Your task to perform on an android device: turn notification dots off Image 0: 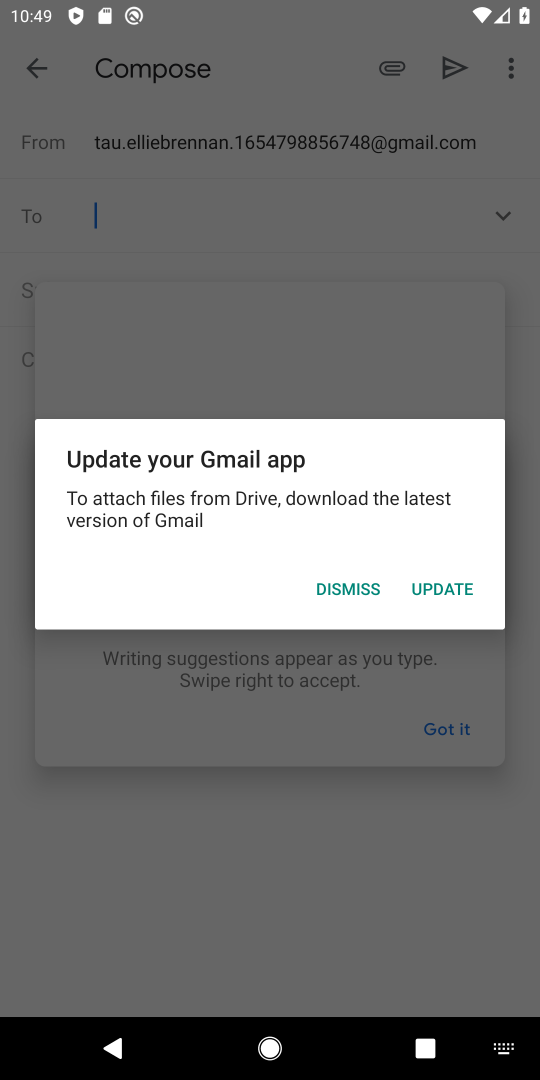
Step 0: press home button
Your task to perform on an android device: turn notification dots off Image 1: 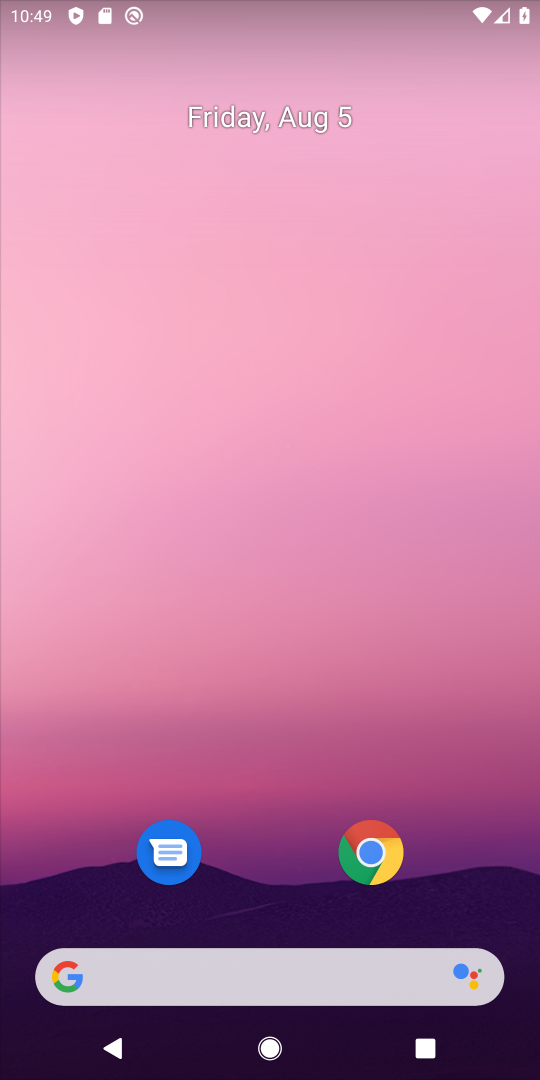
Step 1: drag from (247, 910) to (247, 439)
Your task to perform on an android device: turn notification dots off Image 2: 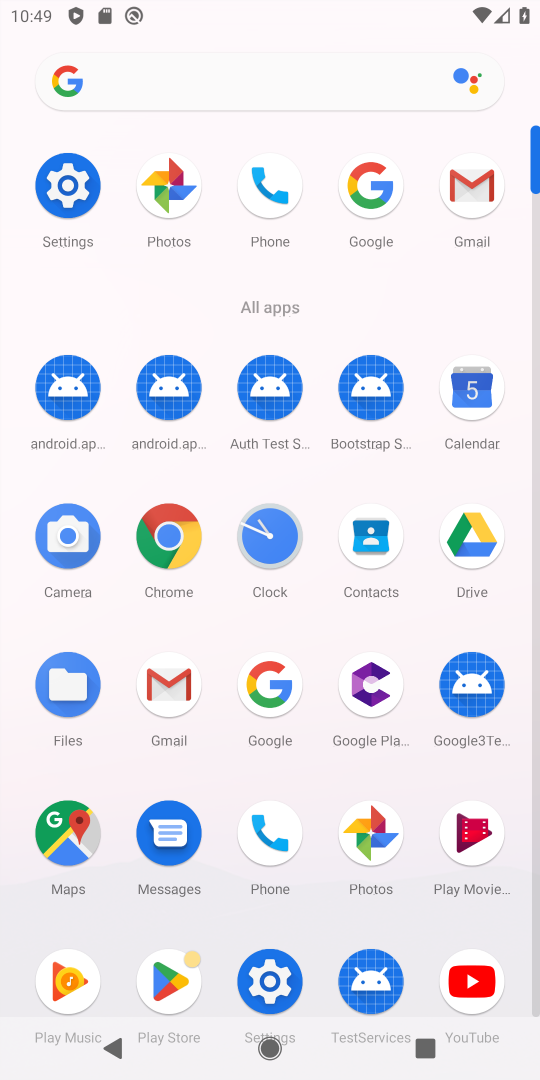
Step 2: click (69, 197)
Your task to perform on an android device: turn notification dots off Image 3: 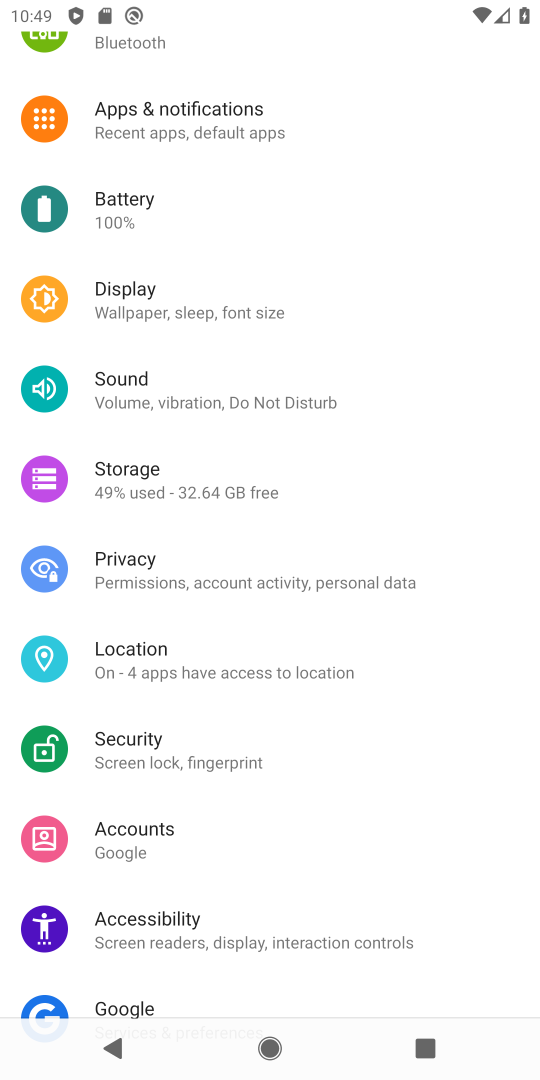
Step 3: click (180, 105)
Your task to perform on an android device: turn notification dots off Image 4: 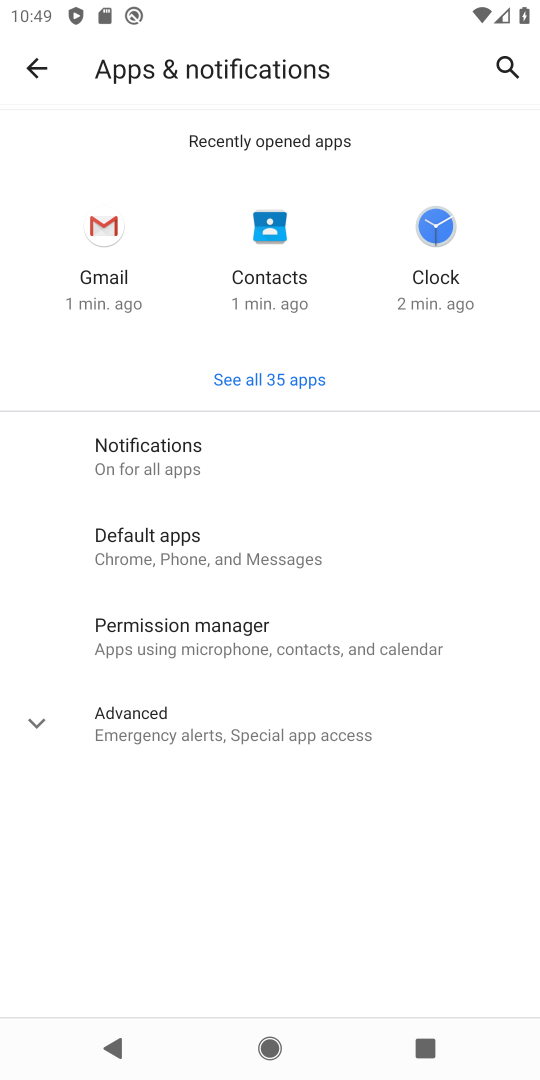
Step 4: click (194, 716)
Your task to perform on an android device: turn notification dots off Image 5: 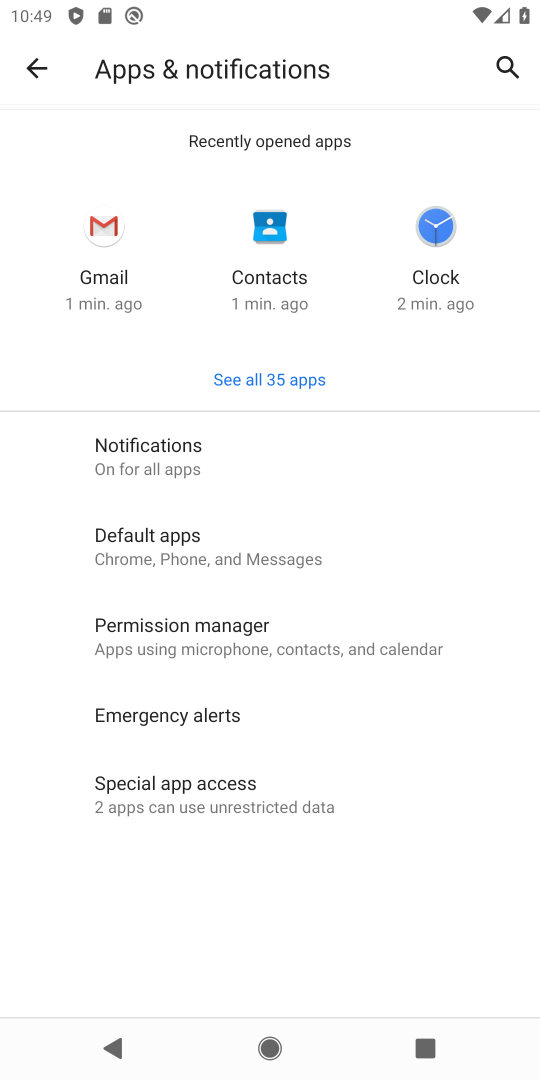
Step 5: click (171, 447)
Your task to perform on an android device: turn notification dots off Image 6: 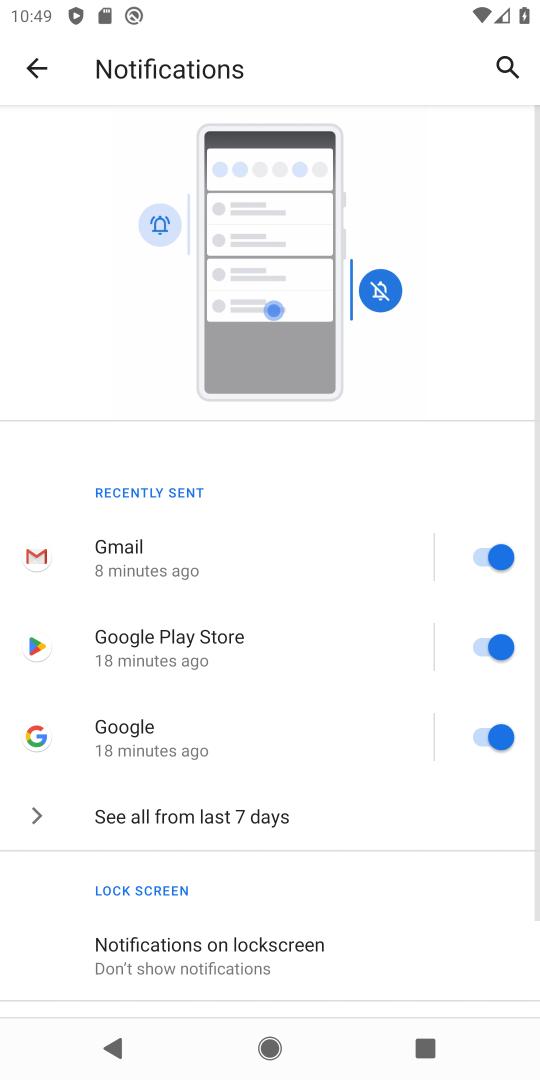
Step 6: drag from (229, 987) to (239, 634)
Your task to perform on an android device: turn notification dots off Image 7: 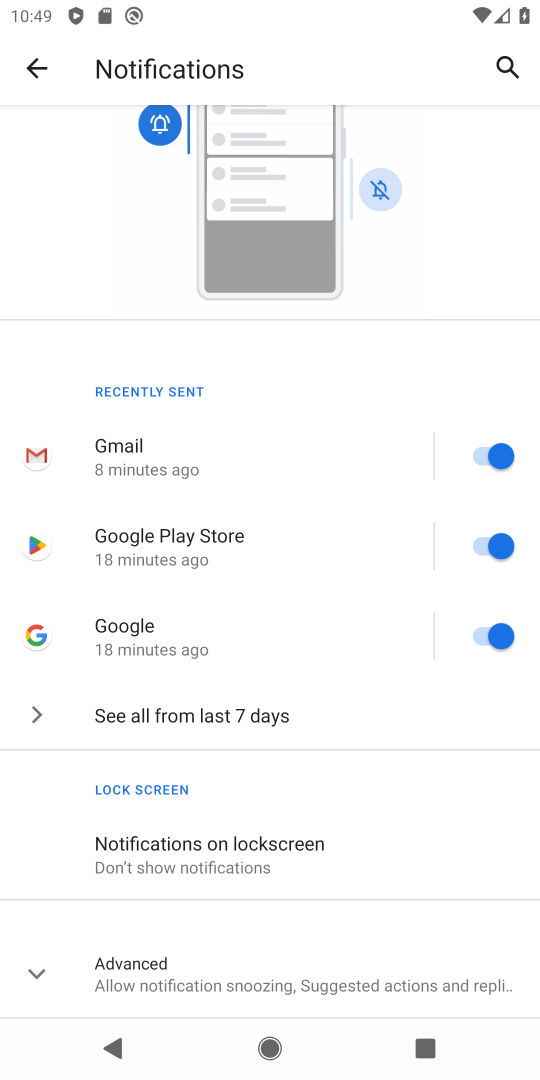
Step 7: click (158, 958)
Your task to perform on an android device: turn notification dots off Image 8: 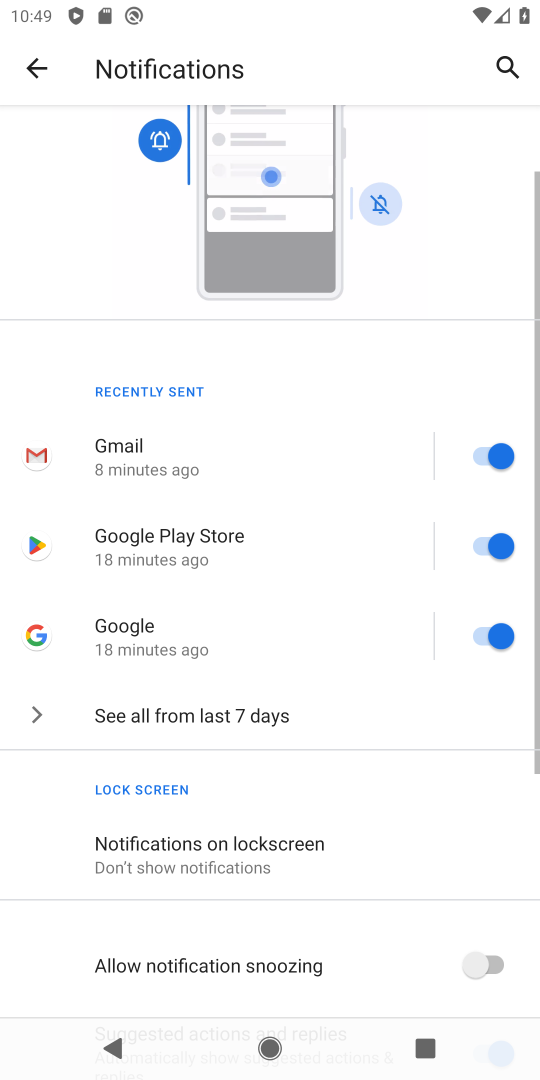
Step 8: drag from (278, 963) to (319, 629)
Your task to perform on an android device: turn notification dots off Image 9: 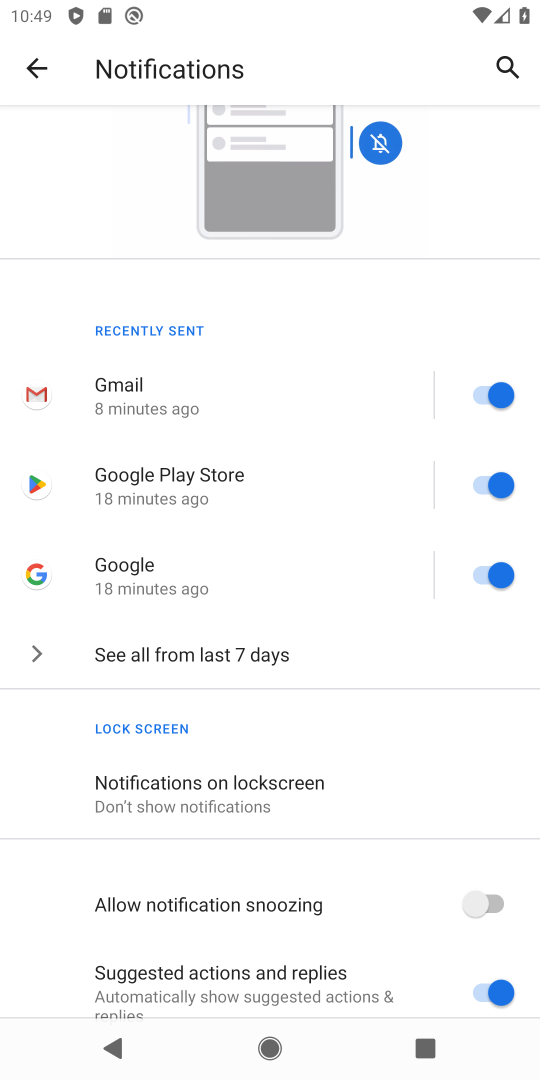
Step 9: drag from (417, 969) to (414, 628)
Your task to perform on an android device: turn notification dots off Image 10: 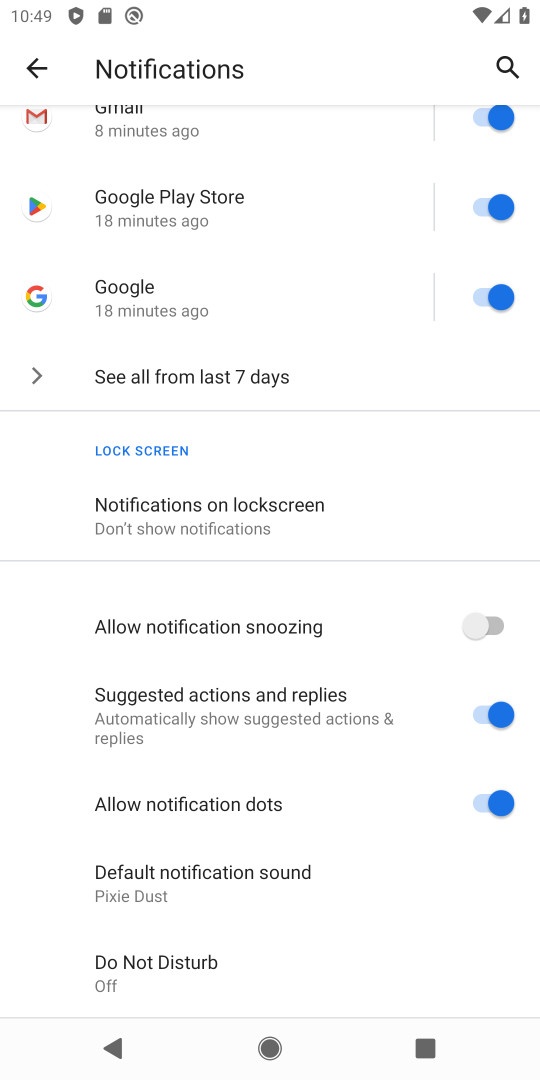
Step 10: click (498, 799)
Your task to perform on an android device: turn notification dots off Image 11: 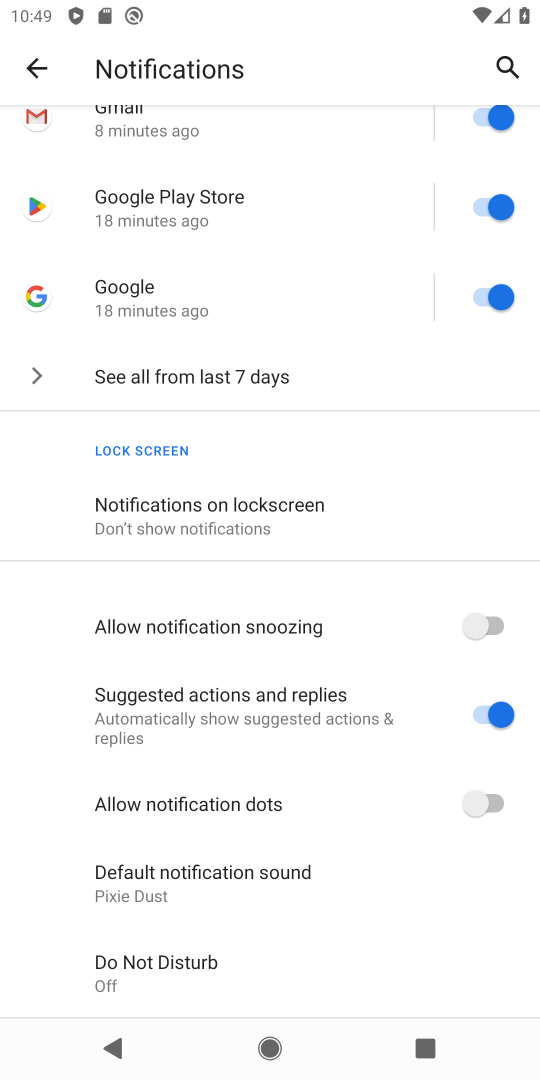
Step 11: task complete